Your task to perform on an android device: turn on airplane mode Image 0: 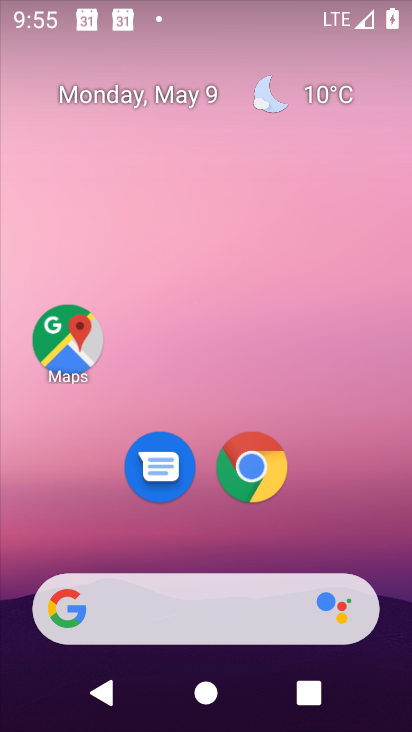
Step 0: drag from (349, 541) to (290, 7)
Your task to perform on an android device: turn on airplane mode Image 1: 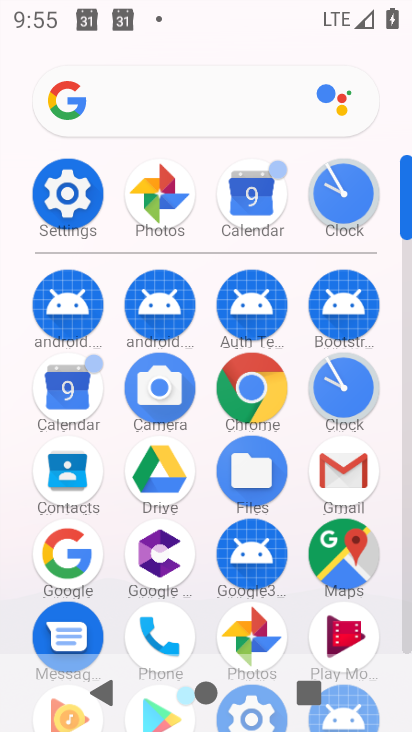
Step 1: click (75, 190)
Your task to perform on an android device: turn on airplane mode Image 2: 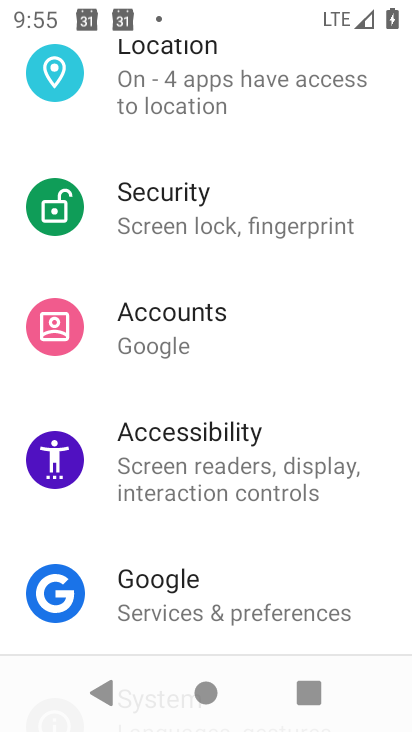
Step 2: drag from (283, 273) to (267, 507)
Your task to perform on an android device: turn on airplane mode Image 3: 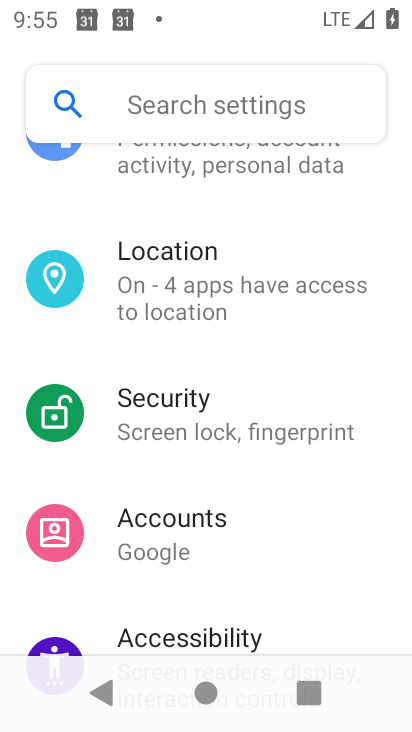
Step 3: drag from (268, 226) to (268, 625)
Your task to perform on an android device: turn on airplane mode Image 4: 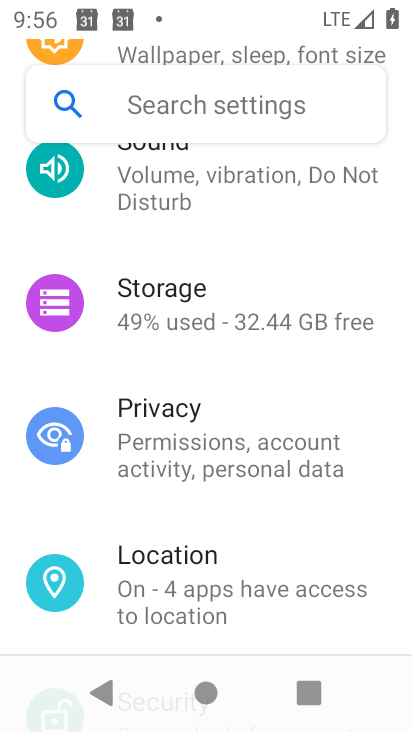
Step 4: drag from (274, 285) to (264, 512)
Your task to perform on an android device: turn on airplane mode Image 5: 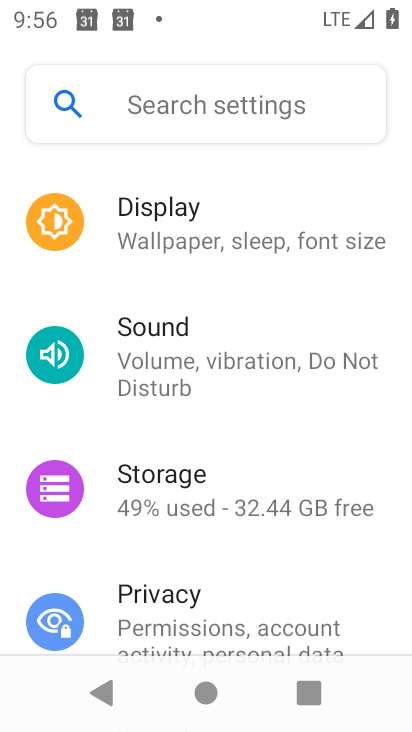
Step 5: drag from (304, 190) to (275, 538)
Your task to perform on an android device: turn on airplane mode Image 6: 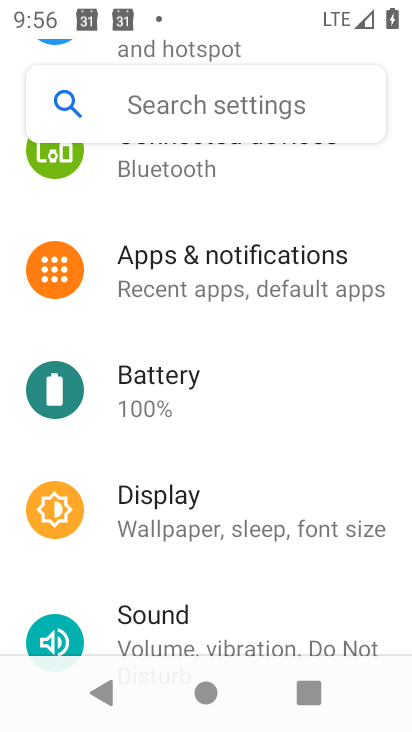
Step 6: drag from (240, 282) to (260, 565)
Your task to perform on an android device: turn on airplane mode Image 7: 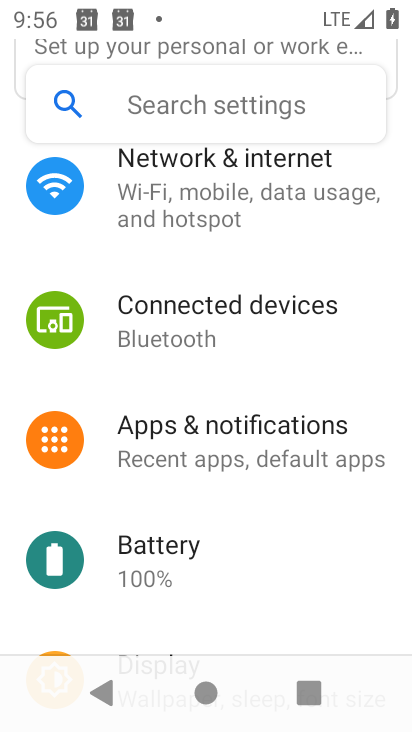
Step 7: drag from (282, 256) to (282, 521)
Your task to perform on an android device: turn on airplane mode Image 8: 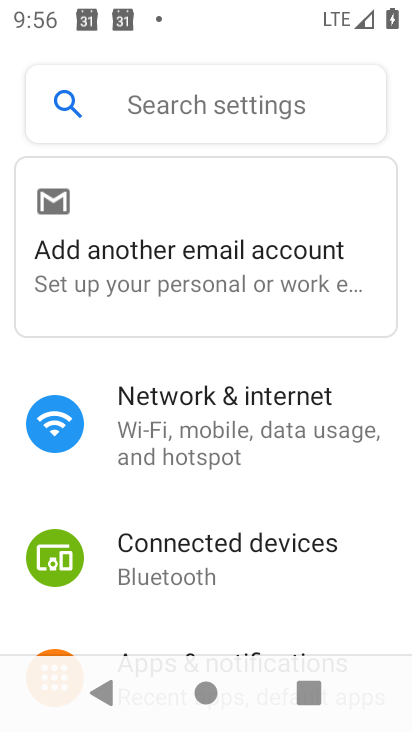
Step 8: click (198, 414)
Your task to perform on an android device: turn on airplane mode Image 9: 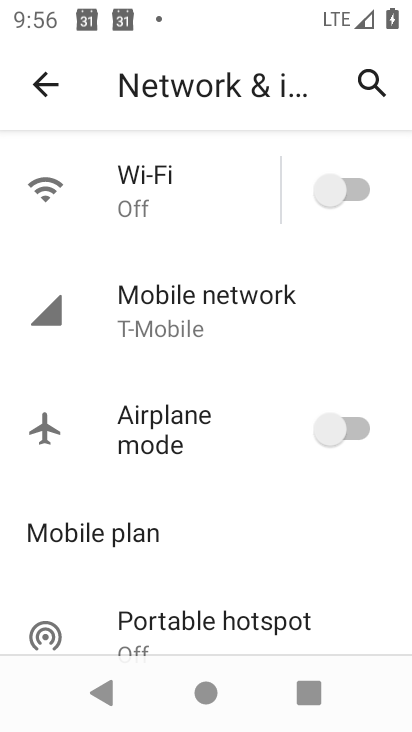
Step 9: click (345, 429)
Your task to perform on an android device: turn on airplane mode Image 10: 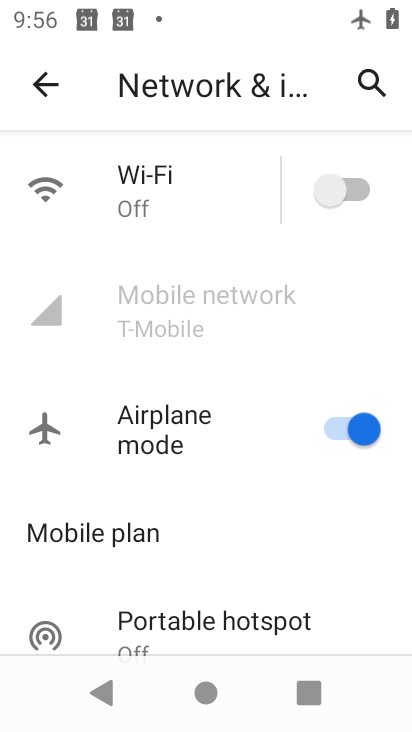
Step 10: task complete